Your task to perform on an android device: Open Google Chrome and click the shortcut for Amazon.com Image 0: 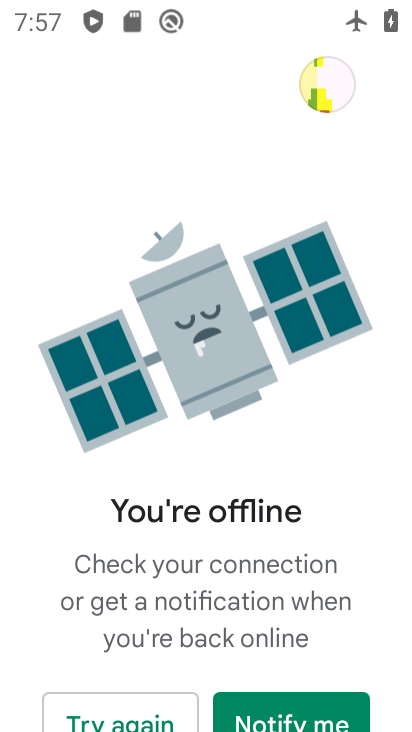
Step 0: press home button
Your task to perform on an android device: Open Google Chrome and click the shortcut for Amazon.com Image 1: 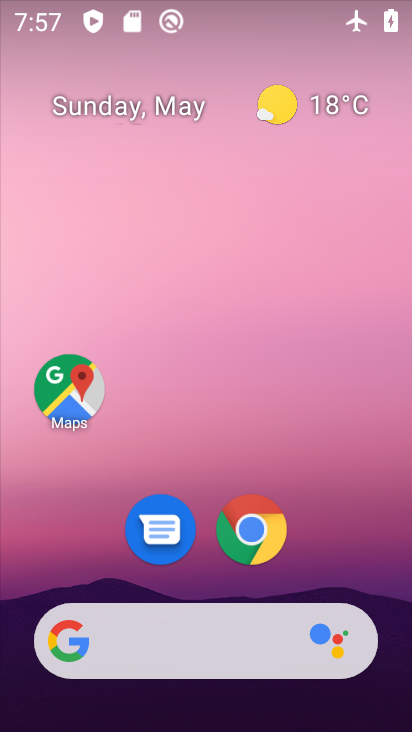
Step 1: click (261, 548)
Your task to perform on an android device: Open Google Chrome and click the shortcut for Amazon.com Image 2: 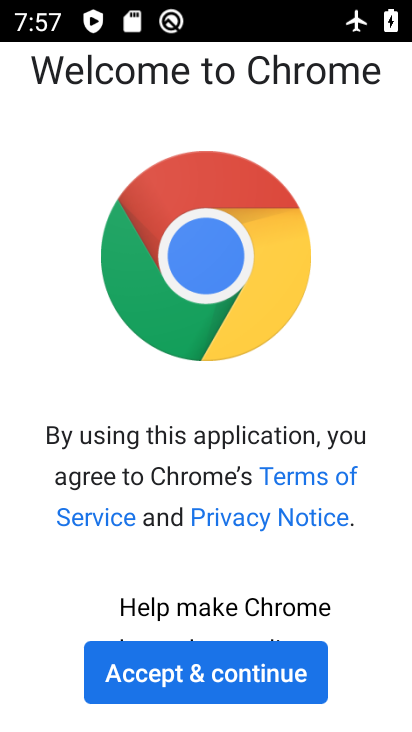
Step 2: click (207, 666)
Your task to perform on an android device: Open Google Chrome and click the shortcut for Amazon.com Image 3: 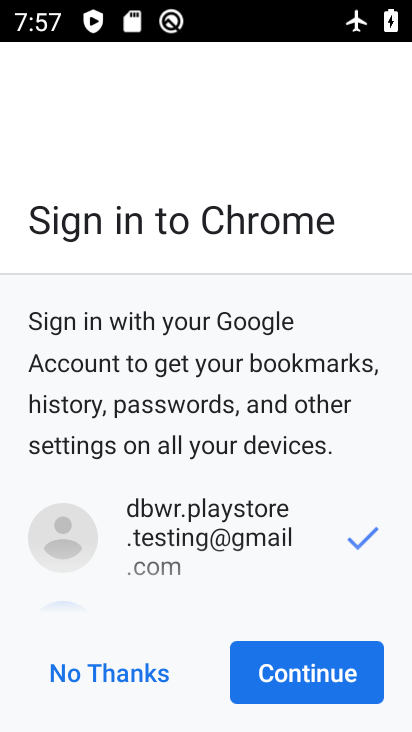
Step 3: click (93, 687)
Your task to perform on an android device: Open Google Chrome and click the shortcut for Amazon.com Image 4: 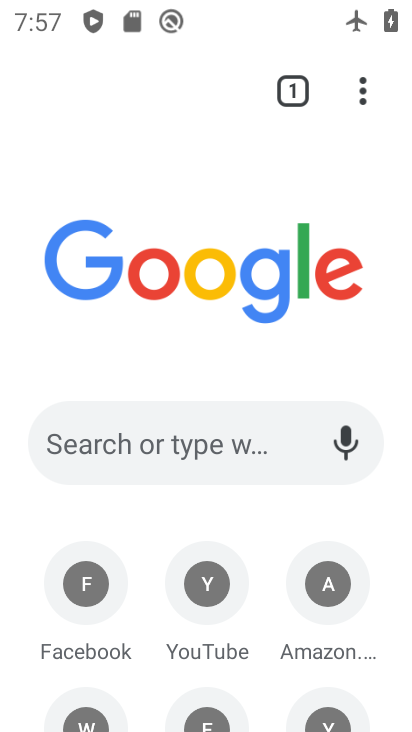
Step 4: click (327, 589)
Your task to perform on an android device: Open Google Chrome and click the shortcut for Amazon.com Image 5: 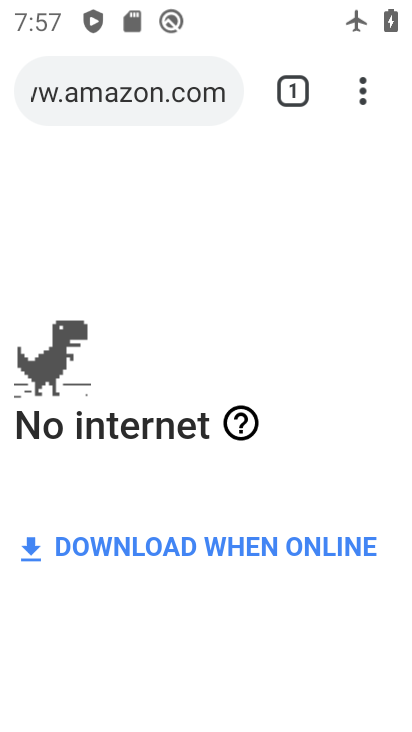
Step 5: task complete